Your task to perform on an android device: change the upload size in google photos Image 0: 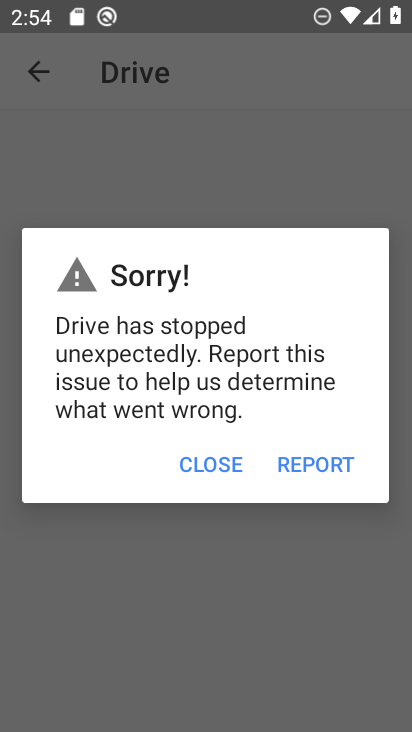
Step 0: press home button
Your task to perform on an android device: change the upload size in google photos Image 1: 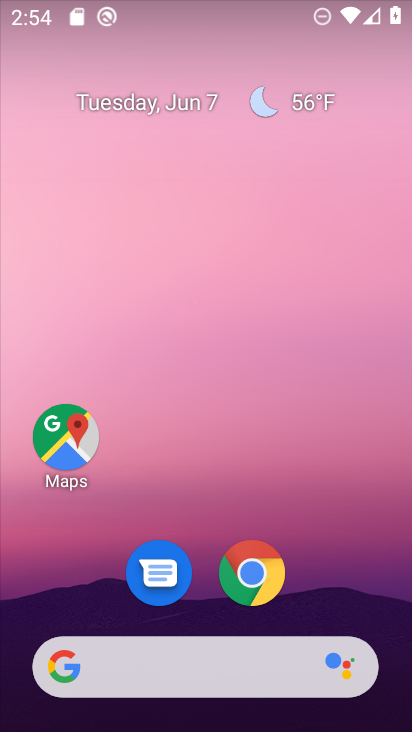
Step 1: drag from (341, 594) to (365, 37)
Your task to perform on an android device: change the upload size in google photos Image 2: 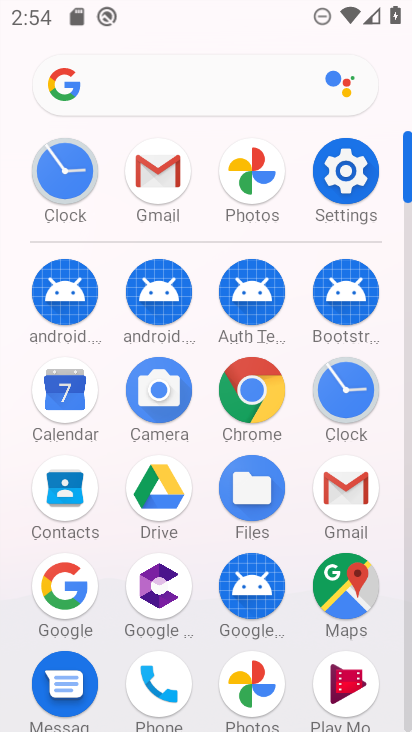
Step 2: click (244, 169)
Your task to perform on an android device: change the upload size in google photos Image 3: 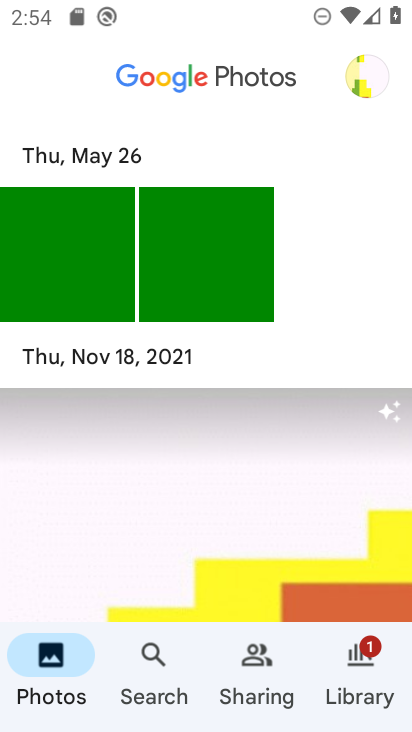
Step 3: click (368, 89)
Your task to perform on an android device: change the upload size in google photos Image 4: 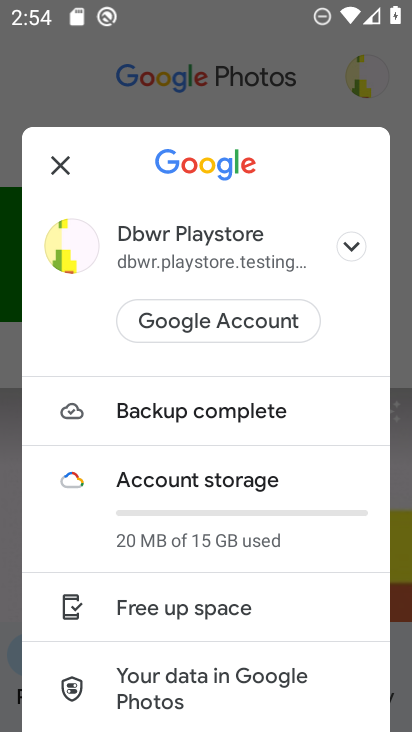
Step 4: drag from (171, 614) to (180, 339)
Your task to perform on an android device: change the upload size in google photos Image 5: 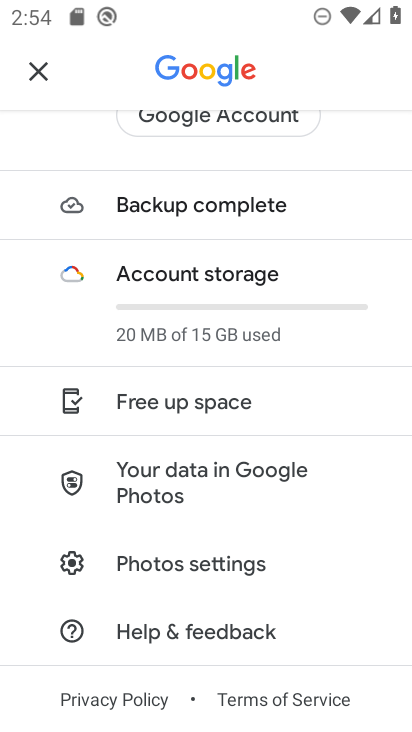
Step 5: click (213, 558)
Your task to perform on an android device: change the upload size in google photos Image 6: 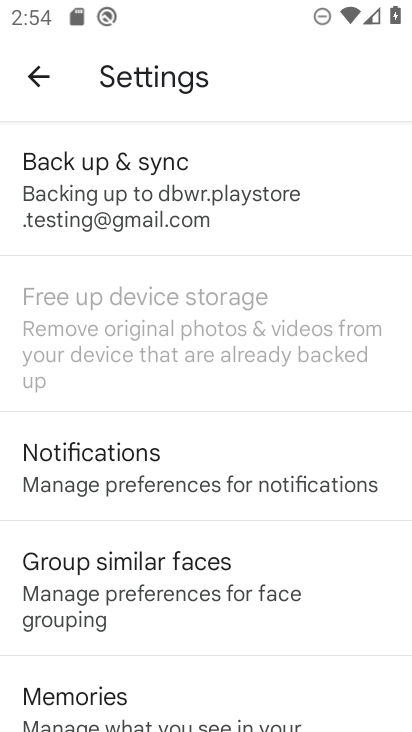
Step 6: click (148, 205)
Your task to perform on an android device: change the upload size in google photos Image 7: 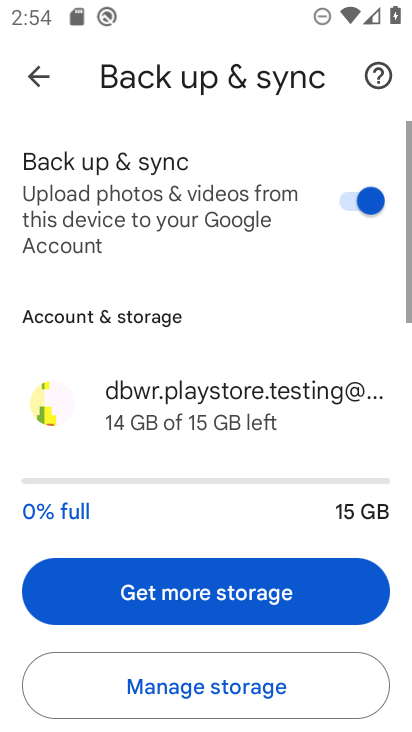
Step 7: drag from (152, 515) to (173, 161)
Your task to perform on an android device: change the upload size in google photos Image 8: 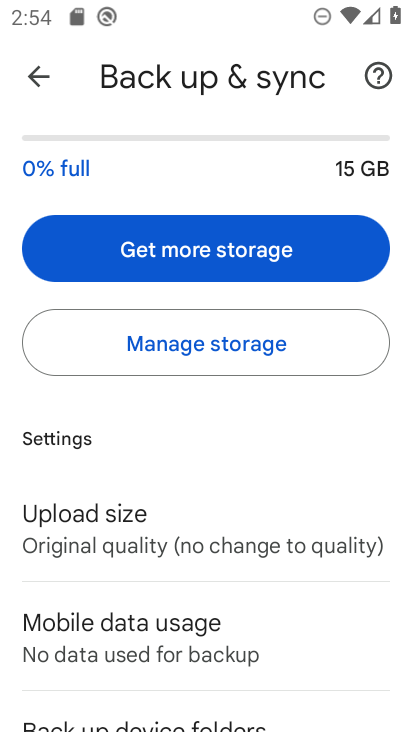
Step 8: click (84, 526)
Your task to perform on an android device: change the upload size in google photos Image 9: 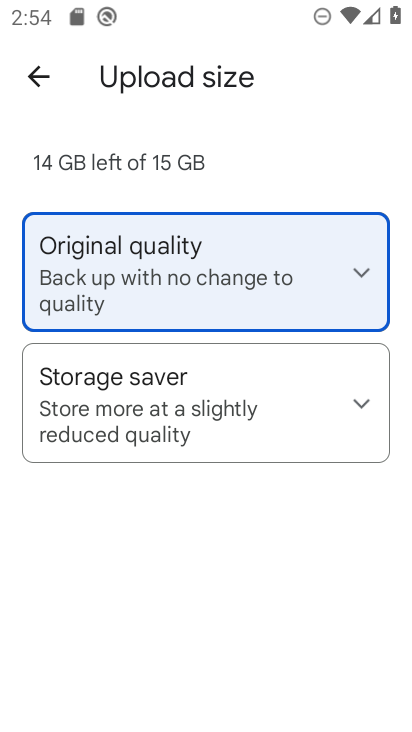
Step 9: click (176, 419)
Your task to perform on an android device: change the upload size in google photos Image 10: 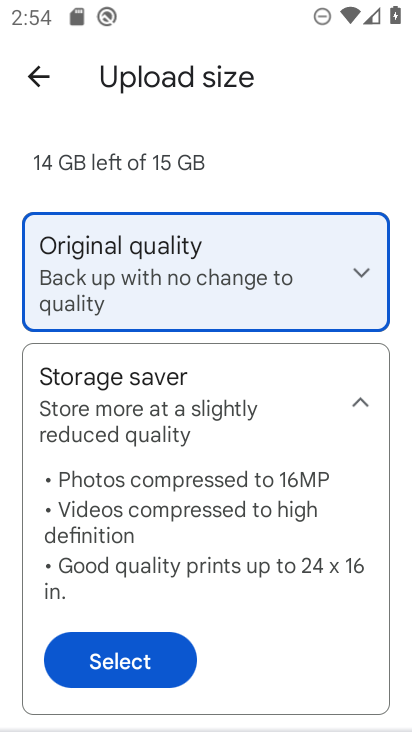
Step 10: click (68, 650)
Your task to perform on an android device: change the upload size in google photos Image 11: 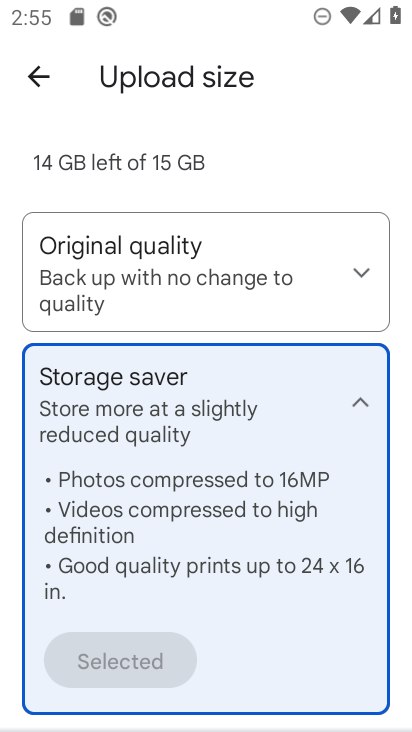
Step 11: task complete